Your task to perform on an android device: set the timer Image 0: 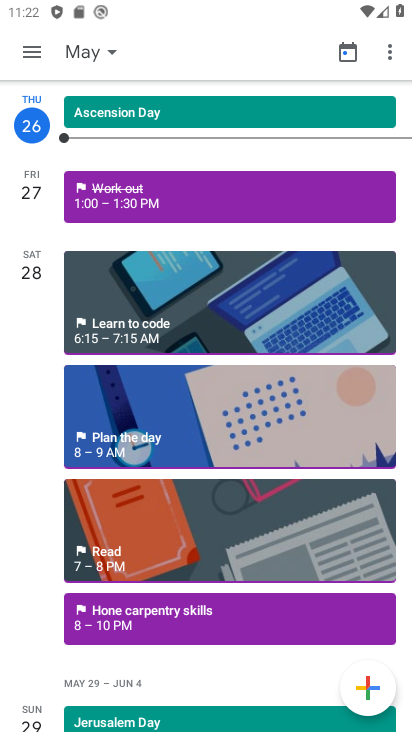
Step 0: press home button
Your task to perform on an android device: set the timer Image 1: 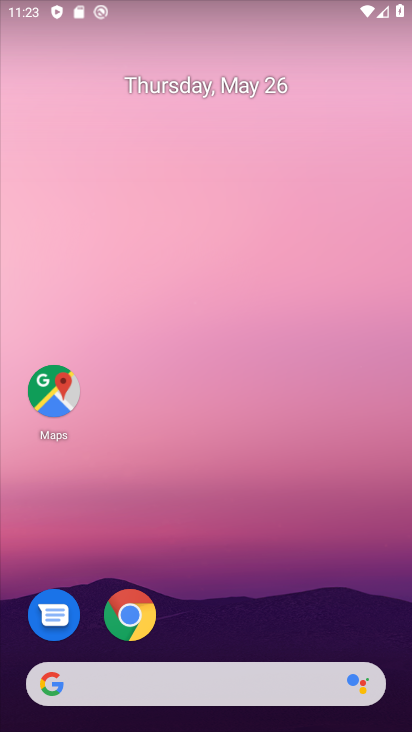
Step 1: drag from (306, 538) to (332, 92)
Your task to perform on an android device: set the timer Image 2: 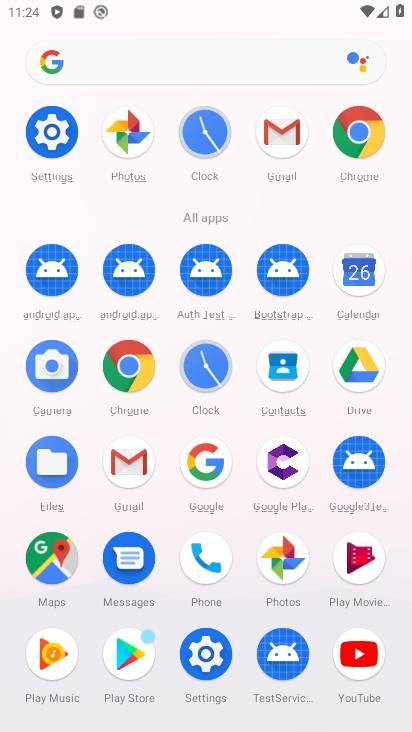
Step 2: click (202, 387)
Your task to perform on an android device: set the timer Image 3: 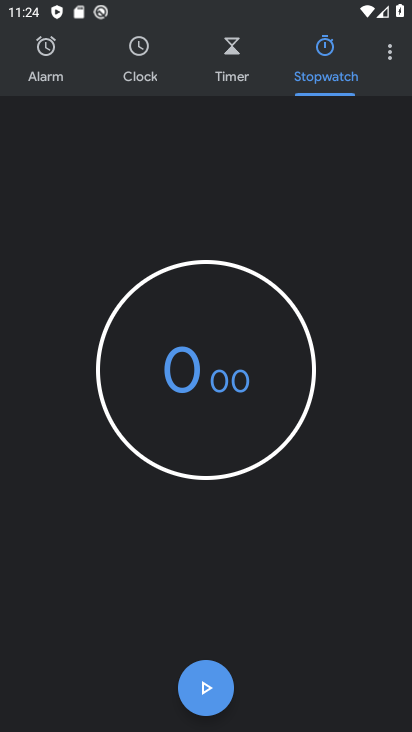
Step 3: click (217, 89)
Your task to perform on an android device: set the timer Image 4: 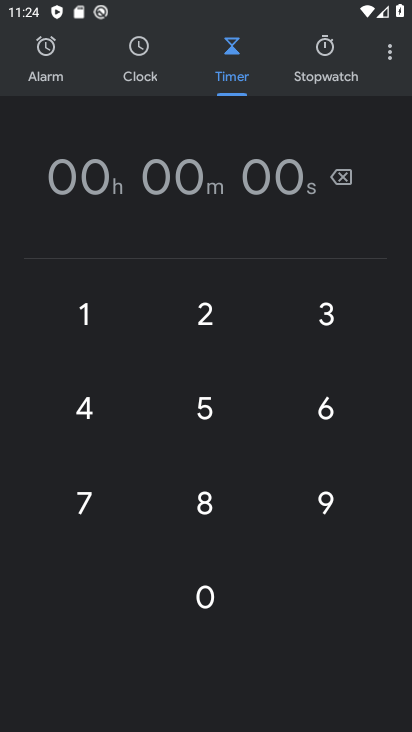
Step 4: click (245, 532)
Your task to perform on an android device: set the timer Image 5: 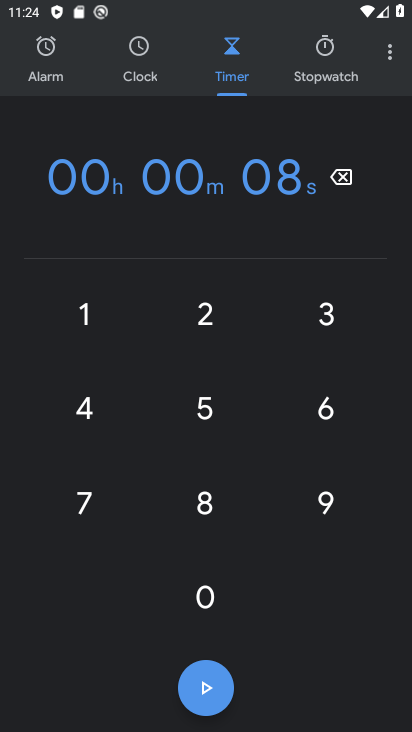
Step 5: click (220, 684)
Your task to perform on an android device: set the timer Image 6: 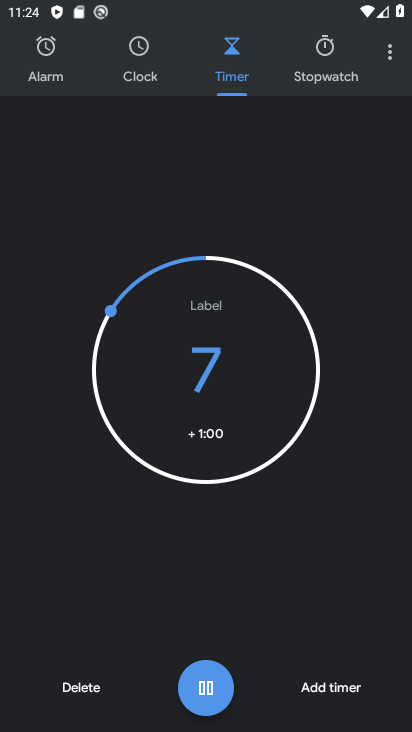
Step 6: task complete